Your task to perform on an android device: check the backup settings in the google photos Image 0: 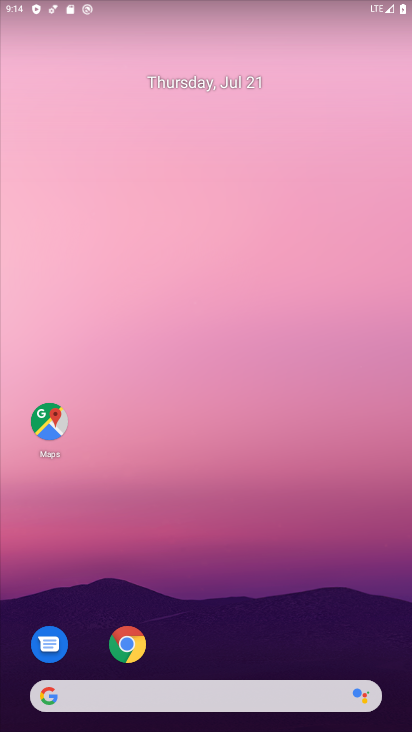
Step 0: drag from (180, 644) to (197, 116)
Your task to perform on an android device: check the backup settings in the google photos Image 1: 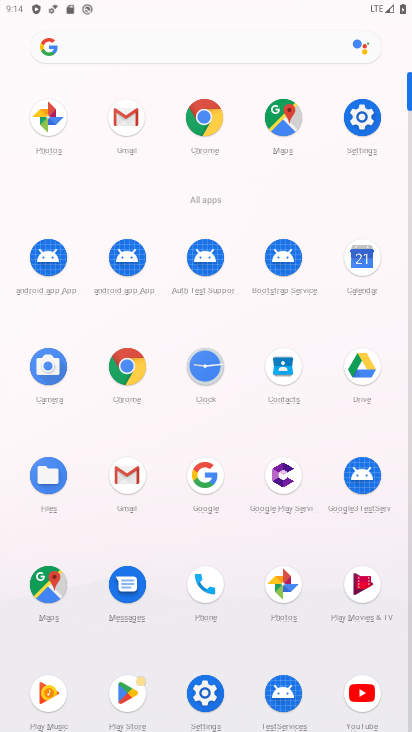
Step 1: click (283, 580)
Your task to perform on an android device: check the backup settings in the google photos Image 2: 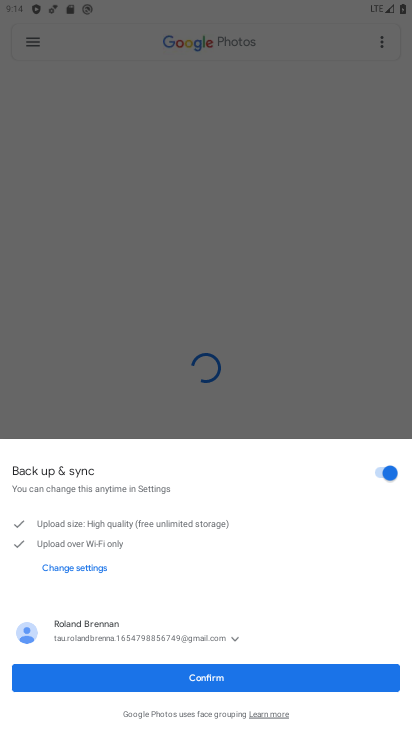
Step 2: click (204, 681)
Your task to perform on an android device: check the backup settings in the google photos Image 3: 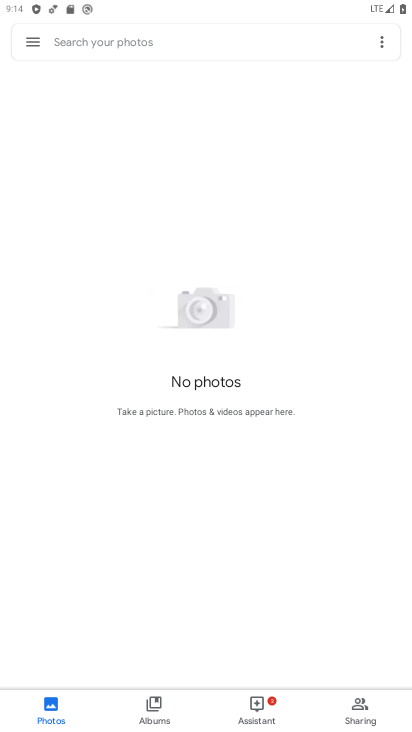
Step 3: click (34, 45)
Your task to perform on an android device: check the backup settings in the google photos Image 4: 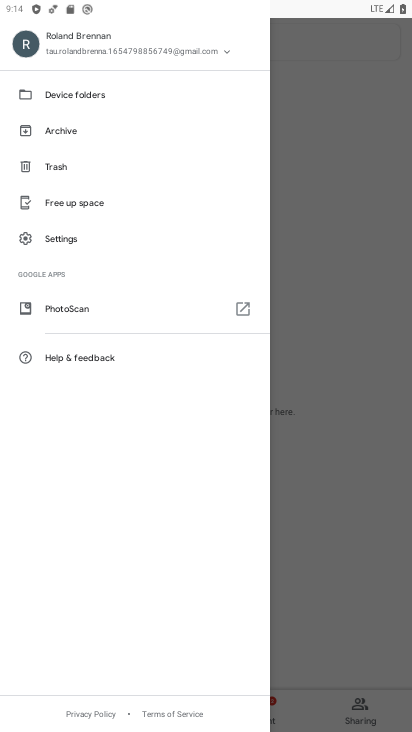
Step 4: click (62, 238)
Your task to perform on an android device: check the backup settings in the google photos Image 5: 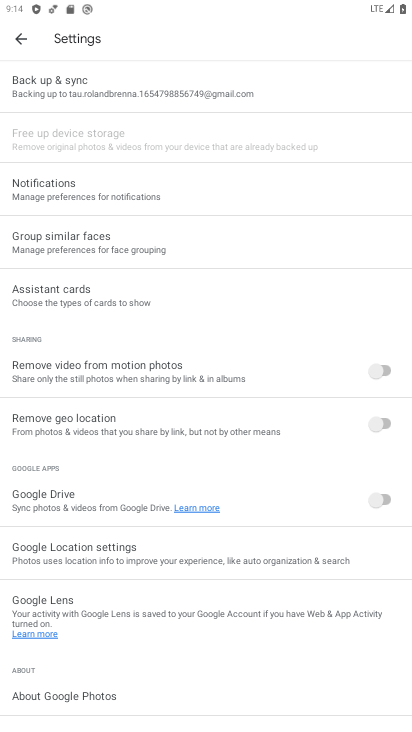
Step 5: click (82, 84)
Your task to perform on an android device: check the backup settings in the google photos Image 6: 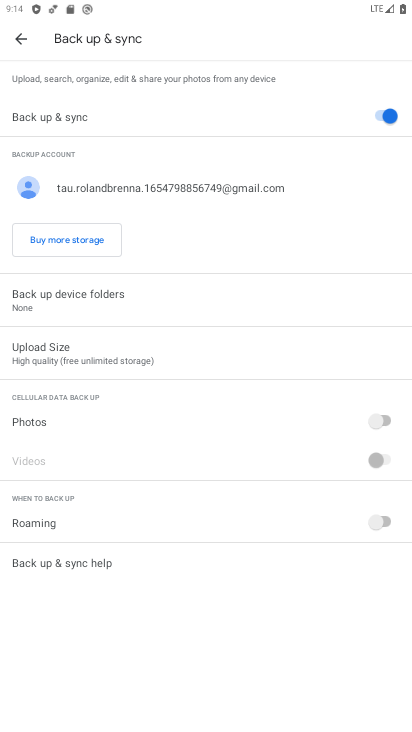
Step 6: task complete